Your task to perform on an android device: Open my contact list Image 0: 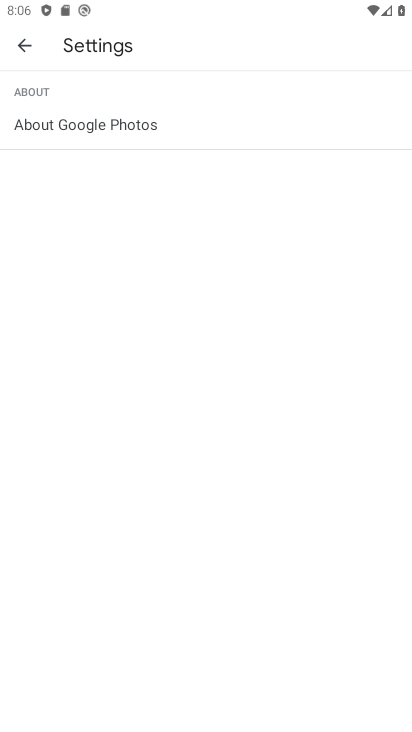
Step 0: press home button
Your task to perform on an android device: Open my contact list Image 1: 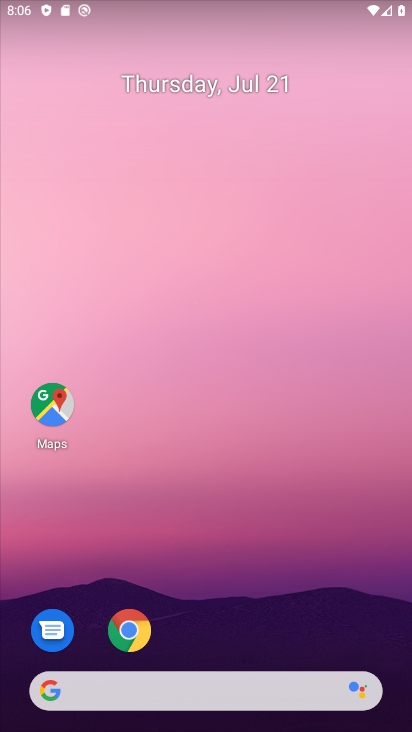
Step 1: drag from (243, 611) to (248, 209)
Your task to perform on an android device: Open my contact list Image 2: 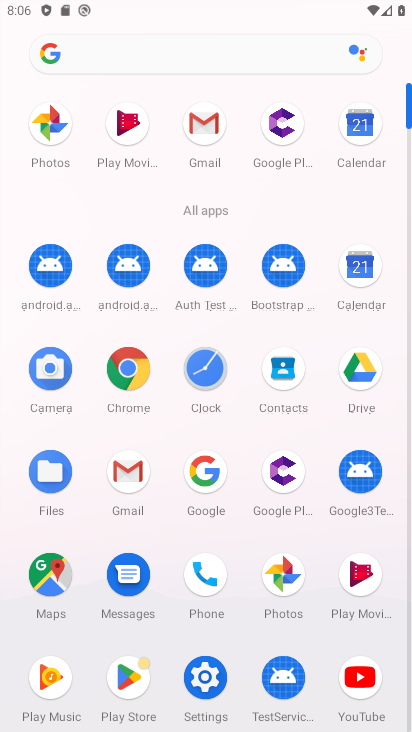
Step 2: click (280, 364)
Your task to perform on an android device: Open my contact list Image 3: 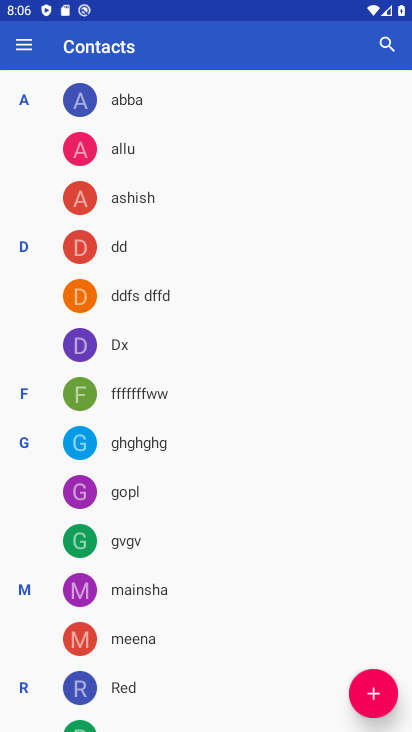
Step 3: task complete